Your task to perform on an android device: Clear the shopping cart on target.com. Image 0: 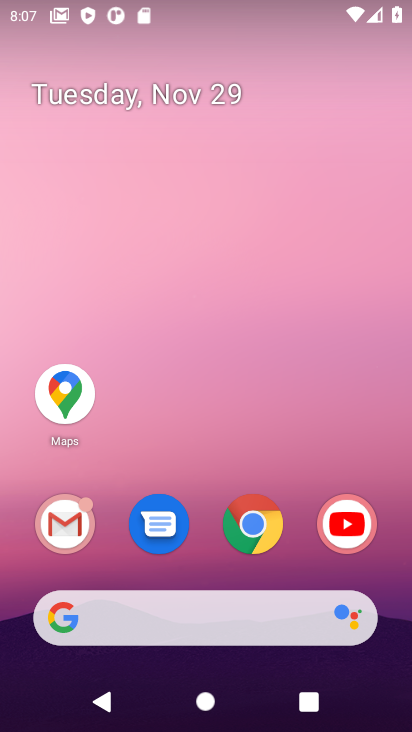
Step 0: click (247, 519)
Your task to perform on an android device: Clear the shopping cart on target.com. Image 1: 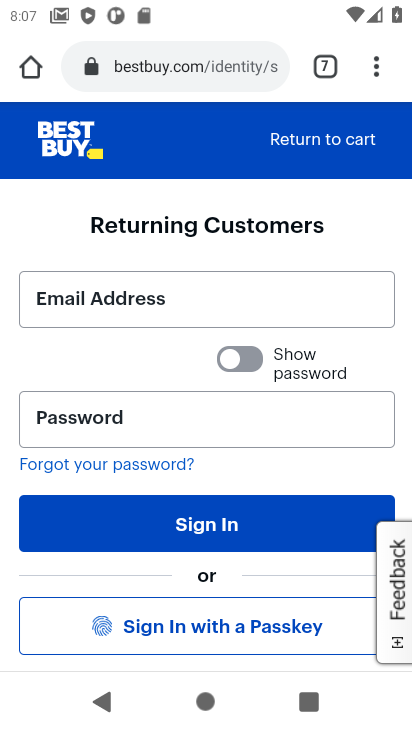
Step 1: click (165, 62)
Your task to perform on an android device: Clear the shopping cart on target.com. Image 2: 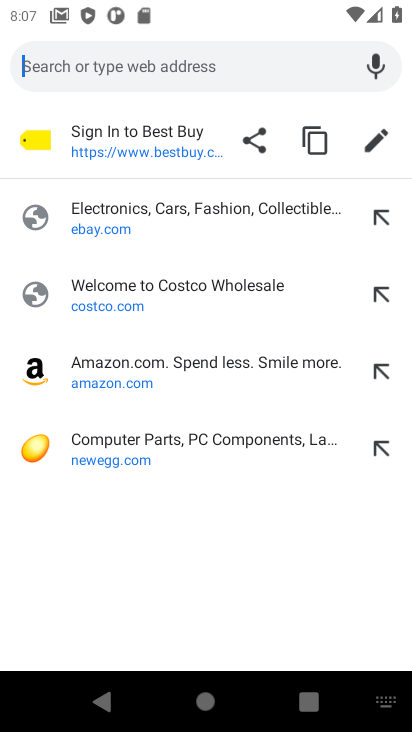
Step 2: type "target.com"
Your task to perform on an android device: Clear the shopping cart on target.com. Image 3: 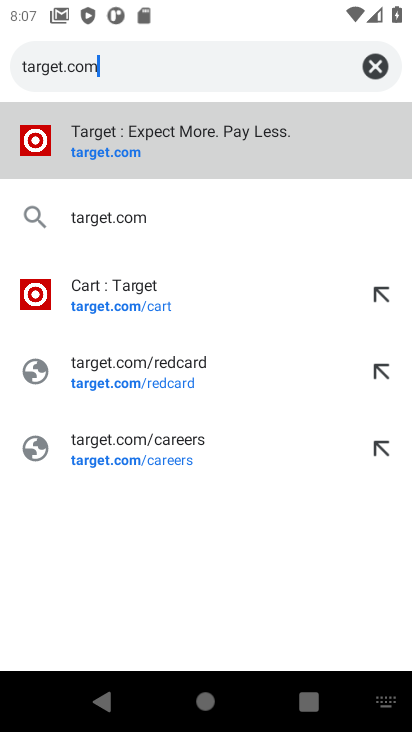
Step 3: click (101, 144)
Your task to perform on an android device: Clear the shopping cart on target.com. Image 4: 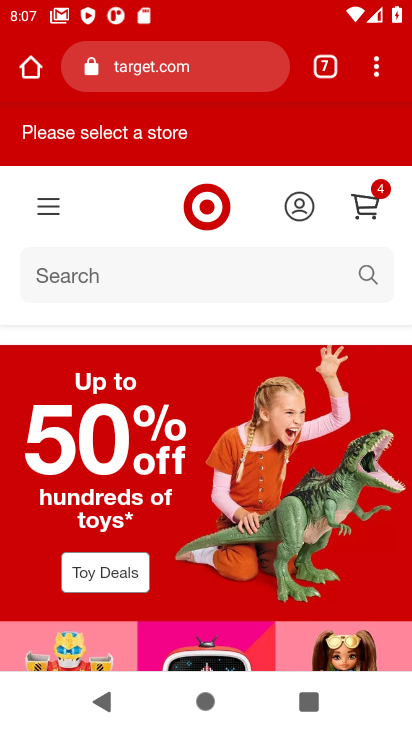
Step 4: click (366, 208)
Your task to perform on an android device: Clear the shopping cart on target.com. Image 5: 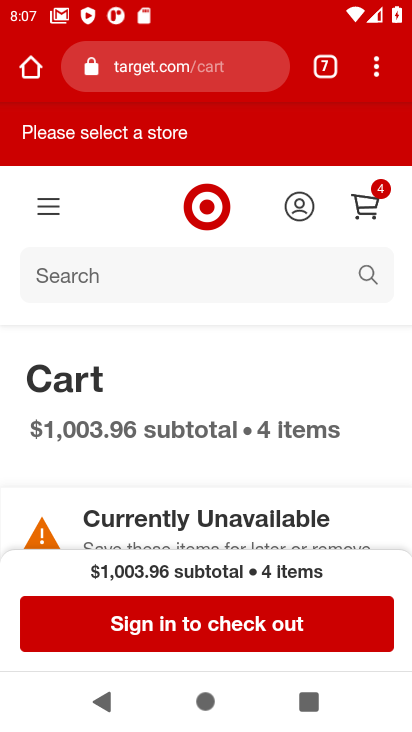
Step 5: drag from (307, 463) to (280, 174)
Your task to perform on an android device: Clear the shopping cart on target.com. Image 6: 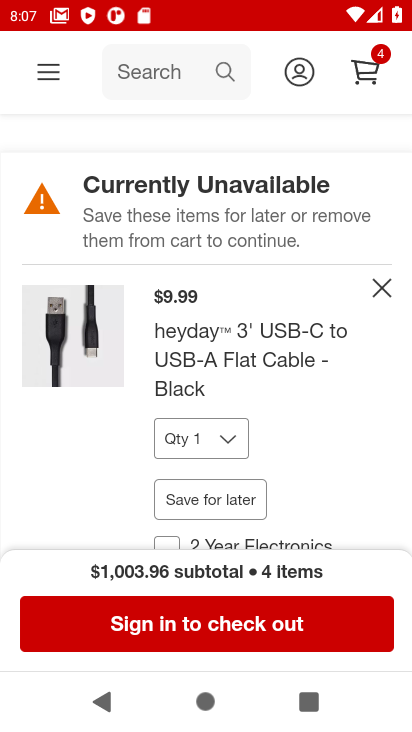
Step 6: click (386, 293)
Your task to perform on an android device: Clear the shopping cart on target.com. Image 7: 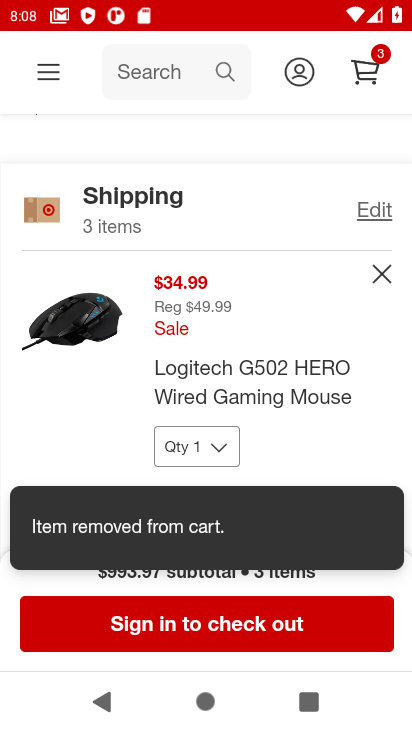
Step 7: click (382, 280)
Your task to perform on an android device: Clear the shopping cart on target.com. Image 8: 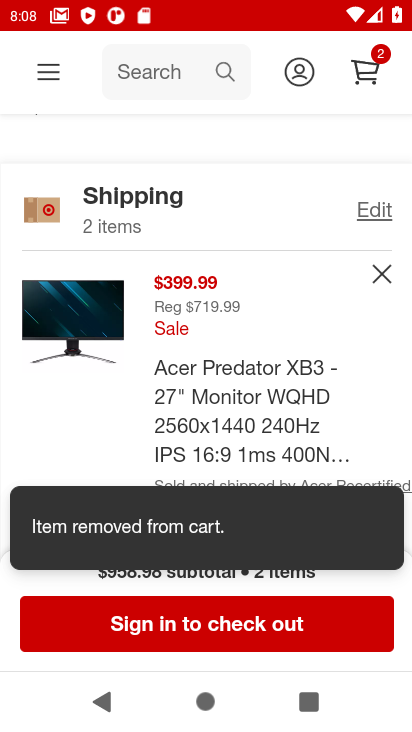
Step 8: click (382, 280)
Your task to perform on an android device: Clear the shopping cart on target.com. Image 9: 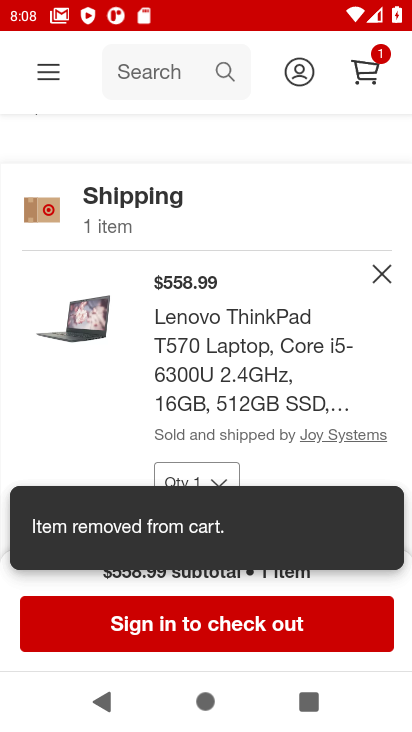
Step 9: click (382, 280)
Your task to perform on an android device: Clear the shopping cart on target.com. Image 10: 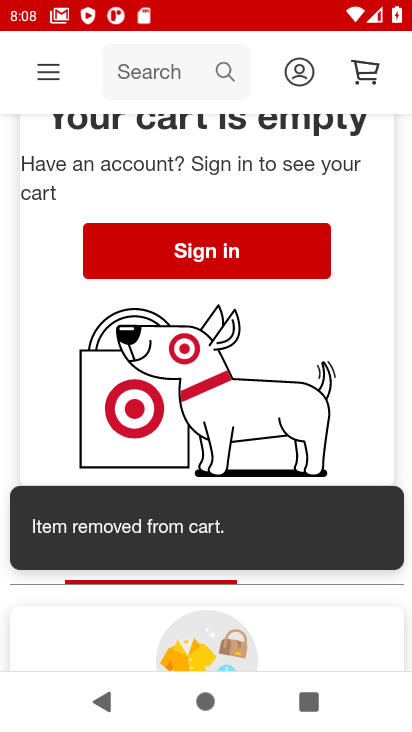
Step 10: task complete